Your task to perform on an android device: turn on bluetooth scan Image 0: 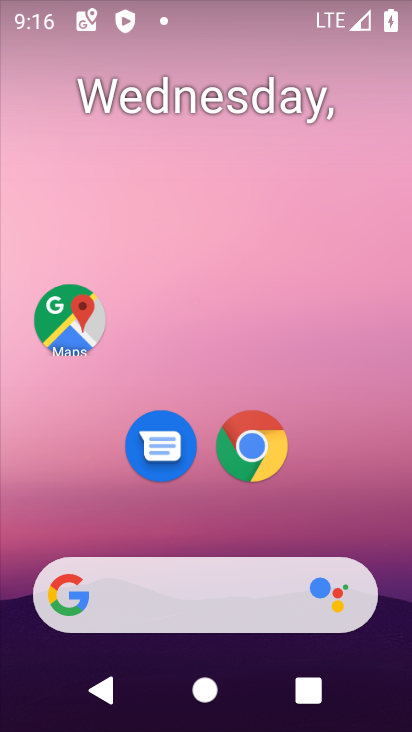
Step 0: press home button
Your task to perform on an android device: turn on bluetooth scan Image 1: 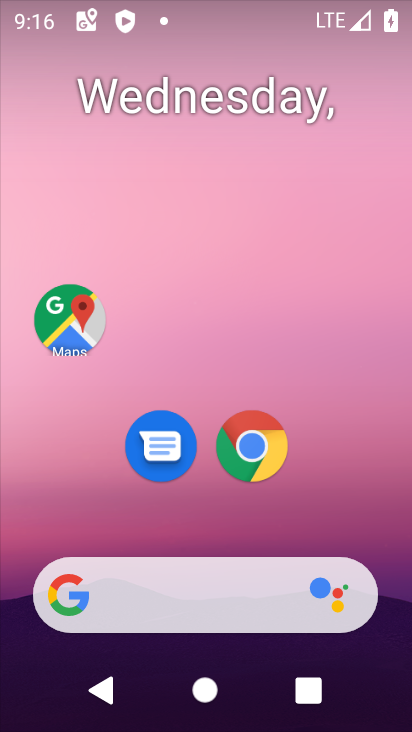
Step 1: drag from (150, 613) to (234, 56)
Your task to perform on an android device: turn on bluetooth scan Image 2: 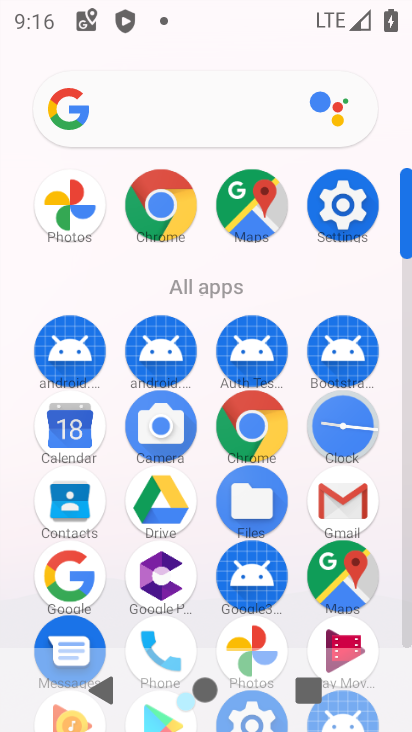
Step 2: click (327, 212)
Your task to perform on an android device: turn on bluetooth scan Image 3: 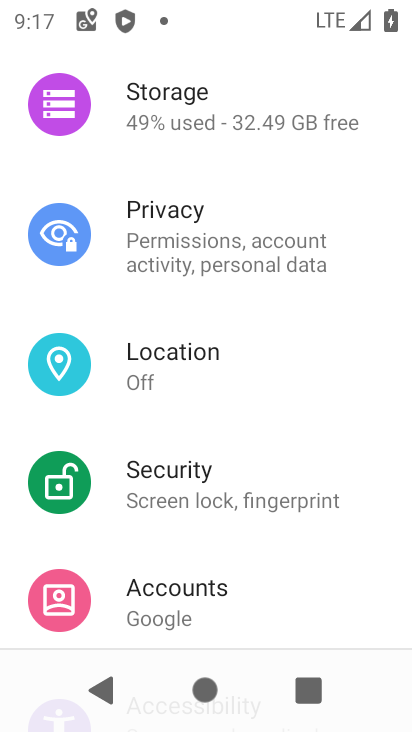
Step 3: drag from (256, 414) to (280, 127)
Your task to perform on an android device: turn on bluetooth scan Image 4: 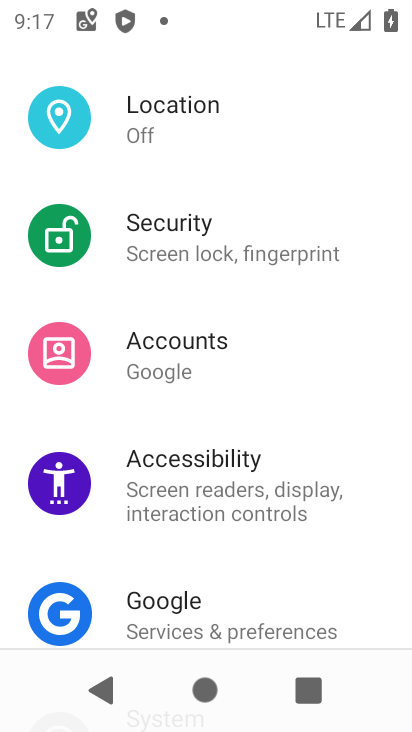
Step 4: click (151, 105)
Your task to perform on an android device: turn on bluetooth scan Image 5: 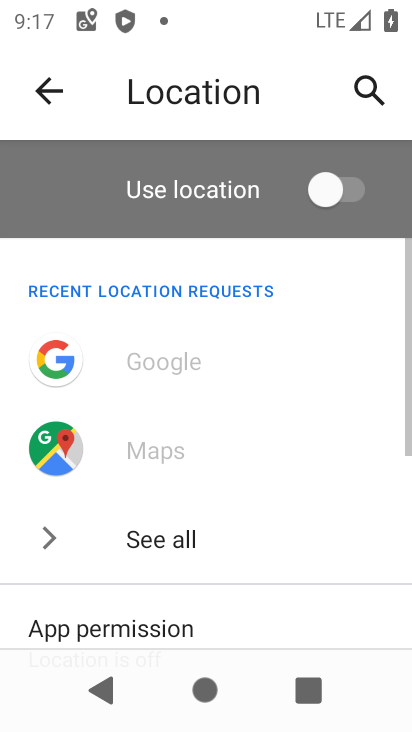
Step 5: drag from (265, 452) to (309, 98)
Your task to perform on an android device: turn on bluetooth scan Image 6: 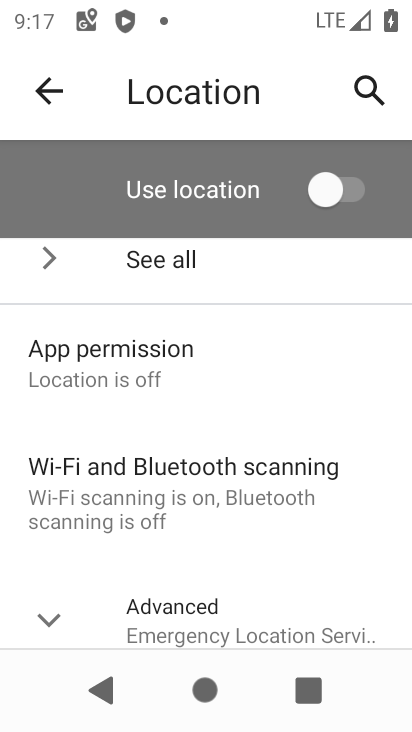
Step 6: click (155, 502)
Your task to perform on an android device: turn on bluetooth scan Image 7: 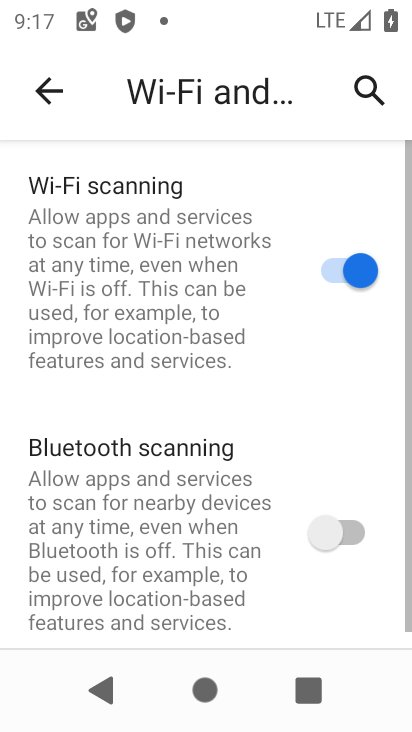
Step 7: drag from (183, 524) to (285, 179)
Your task to perform on an android device: turn on bluetooth scan Image 8: 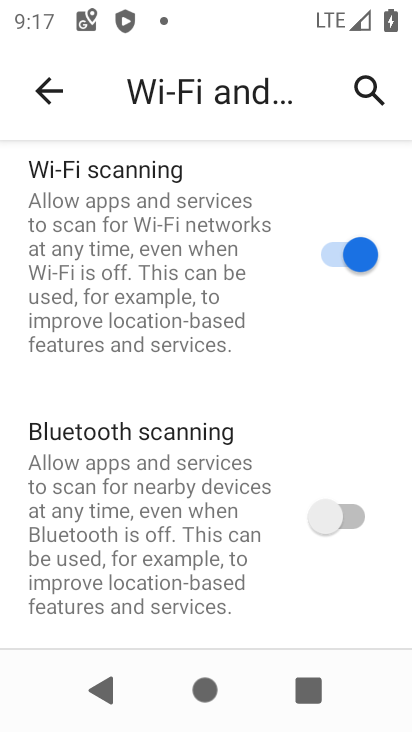
Step 8: click (354, 518)
Your task to perform on an android device: turn on bluetooth scan Image 9: 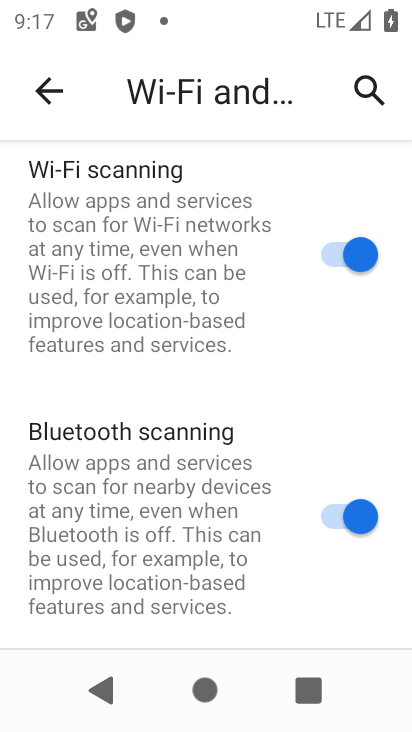
Step 9: task complete